Your task to perform on an android device: Open internet settings Image 0: 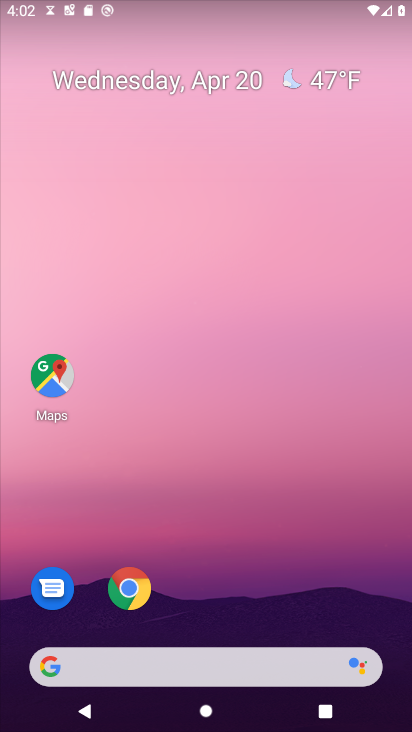
Step 0: drag from (203, 584) to (256, 55)
Your task to perform on an android device: Open internet settings Image 1: 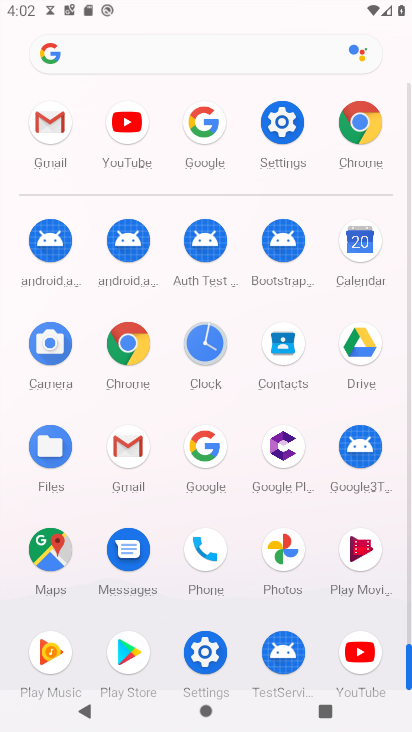
Step 1: click (271, 143)
Your task to perform on an android device: Open internet settings Image 2: 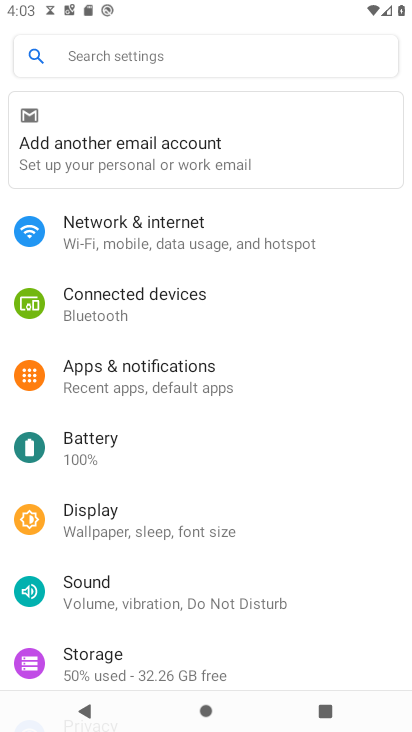
Step 2: click (185, 231)
Your task to perform on an android device: Open internet settings Image 3: 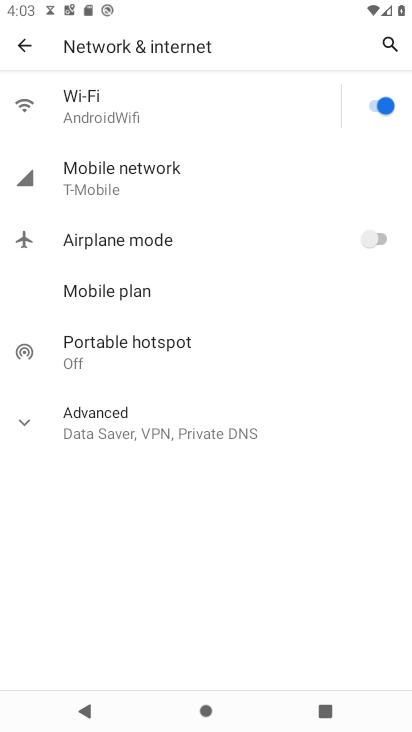
Step 3: click (184, 178)
Your task to perform on an android device: Open internet settings Image 4: 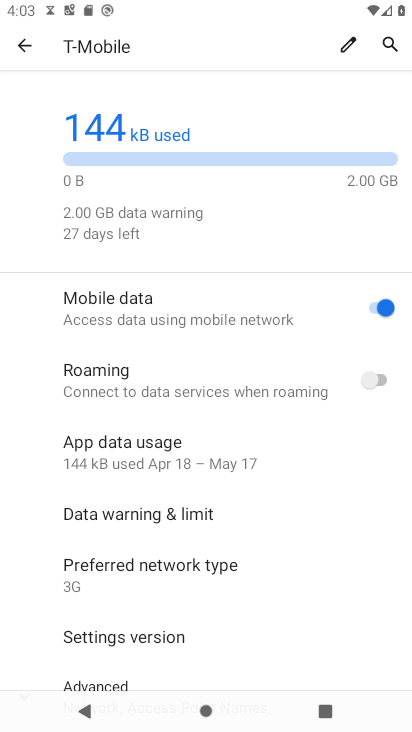
Step 4: task complete